Your task to perform on an android device: Open Amazon Image 0: 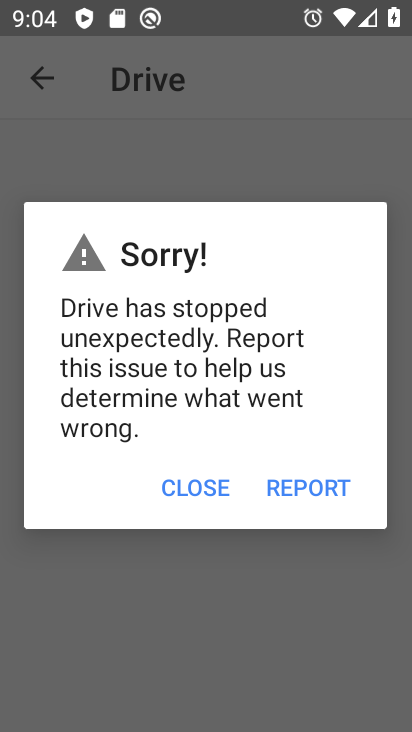
Step 0: press home button
Your task to perform on an android device: Open Amazon Image 1: 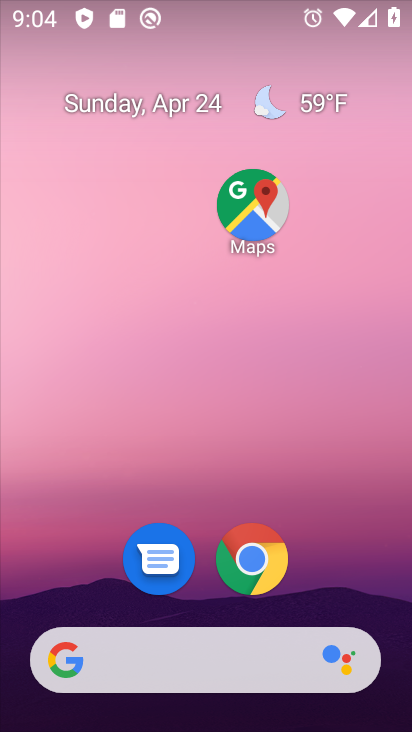
Step 1: click (253, 553)
Your task to perform on an android device: Open Amazon Image 2: 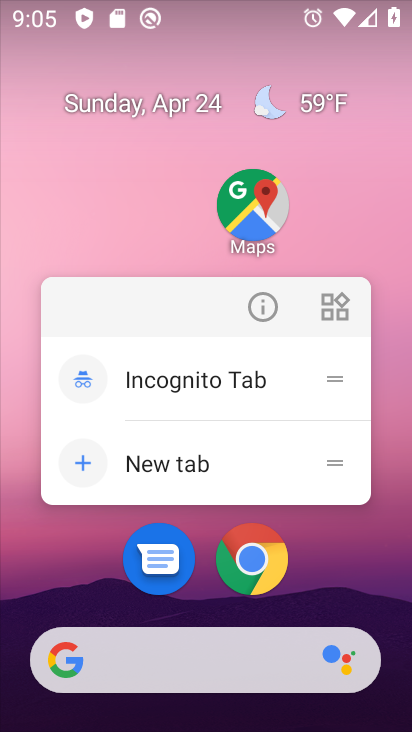
Step 2: click (271, 301)
Your task to perform on an android device: Open Amazon Image 3: 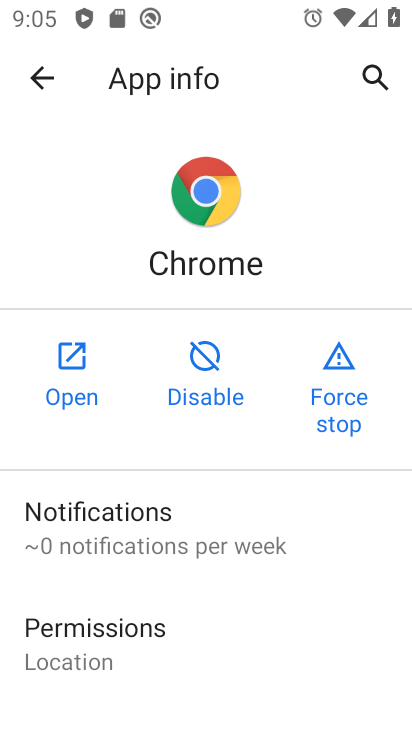
Step 3: click (60, 357)
Your task to perform on an android device: Open Amazon Image 4: 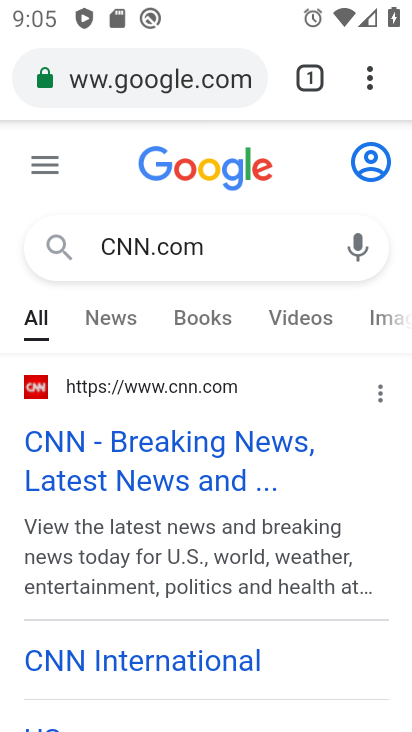
Step 4: click (319, 80)
Your task to perform on an android device: Open Amazon Image 5: 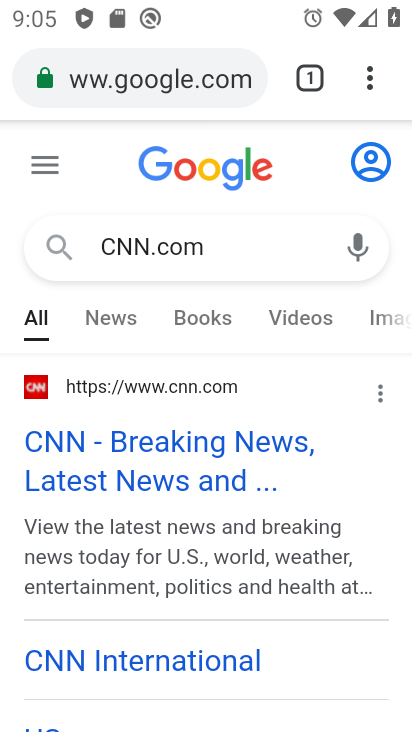
Step 5: click (372, 74)
Your task to perform on an android device: Open Amazon Image 6: 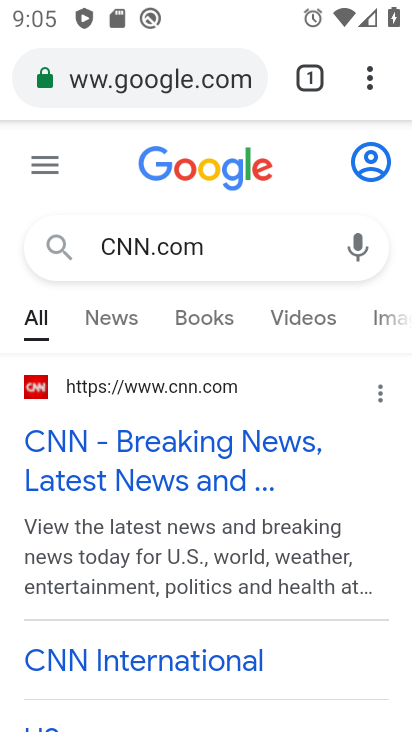
Step 6: drag from (361, 180) to (323, 78)
Your task to perform on an android device: Open Amazon Image 7: 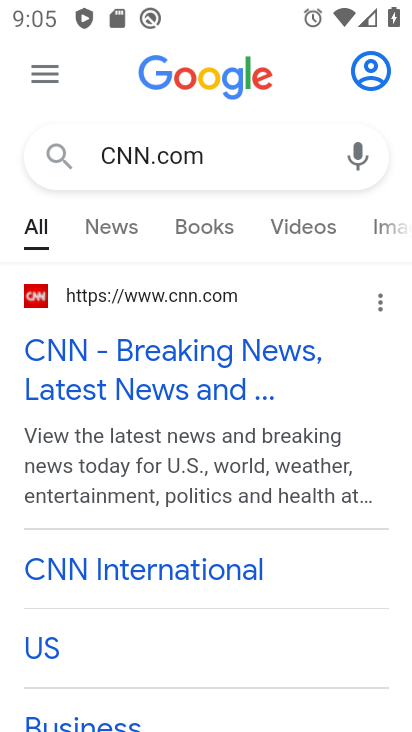
Step 7: drag from (324, 195) to (360, 180)
Your task to perform on an android device: Open Amazon Image 8: 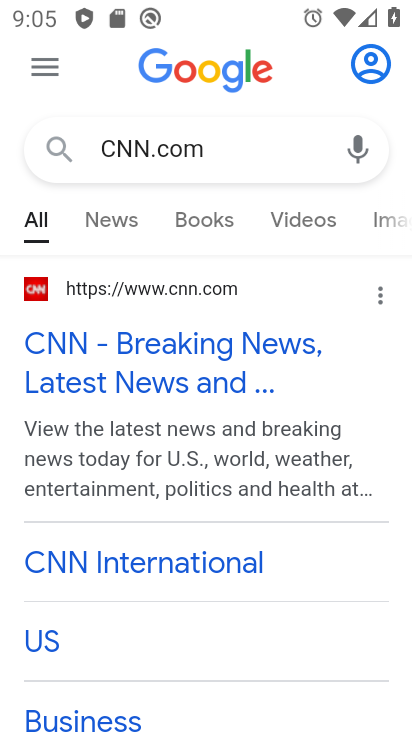
Step 8: drag from (225, 84) to (222, 225)
Your task to perform on an android device: Open Amazon Image 9: 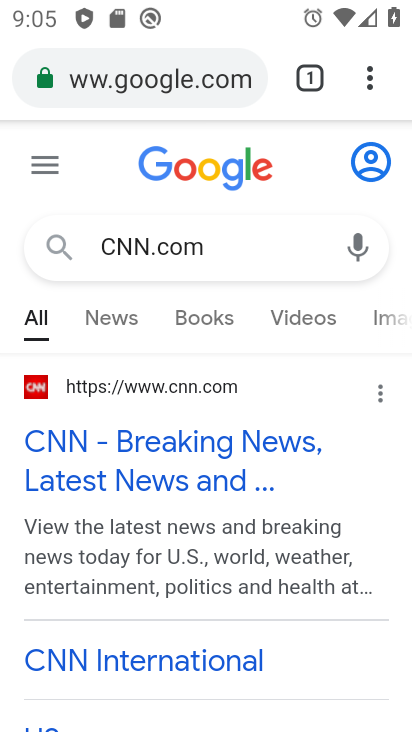
Step 9: click (313, 80)
Your task to perform on an android device: Open Amazon Image 10: 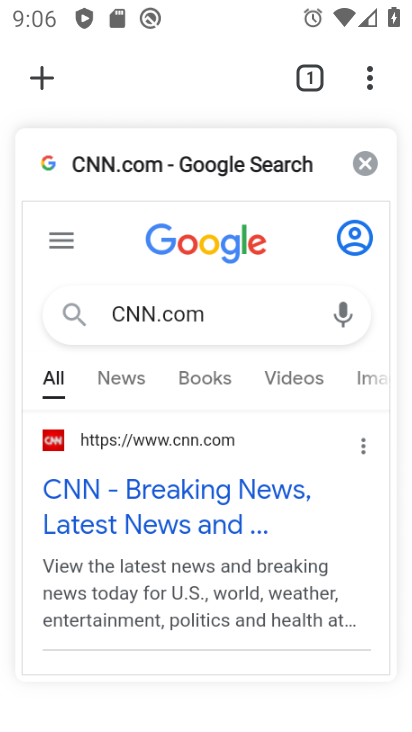
Step 10: click (48, 74)
Your task to perform on an android device: Open Amazon Image 11: 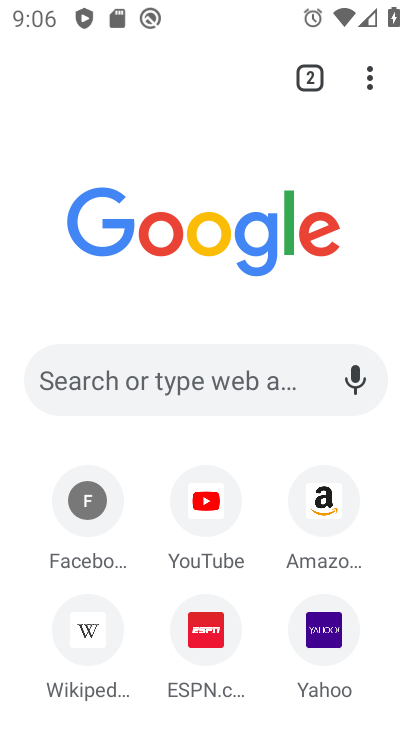
Step 11: click (323, 506)
Your task to perform on an android device: Open Amazon Image 12: 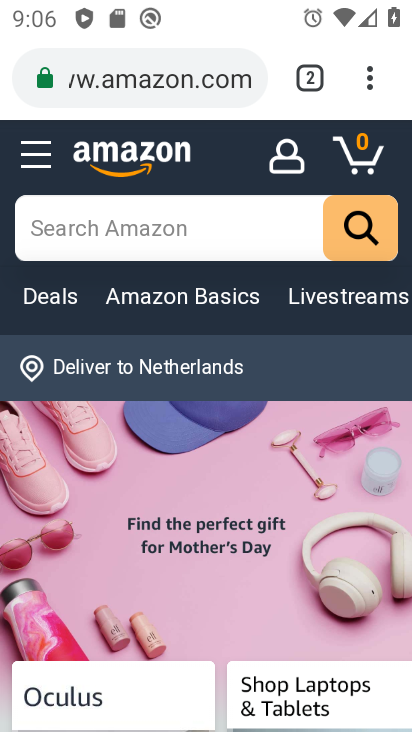
Step 12: task complete